Your task to perform on an android device: Open the stopwatch Image 0: 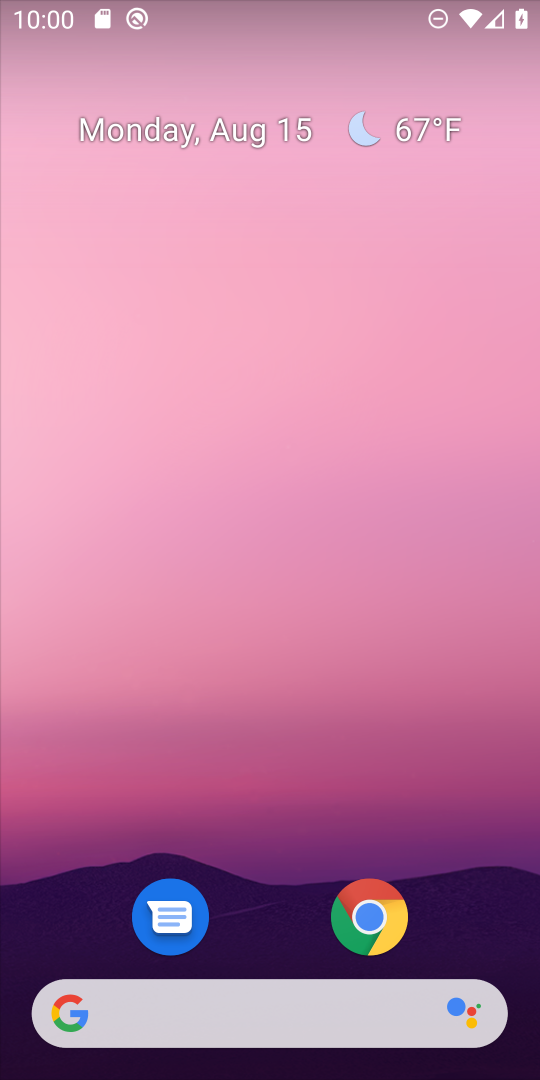
Step 0: press home button
Your task to perform on an android device: Open the stopwatch Image 1: 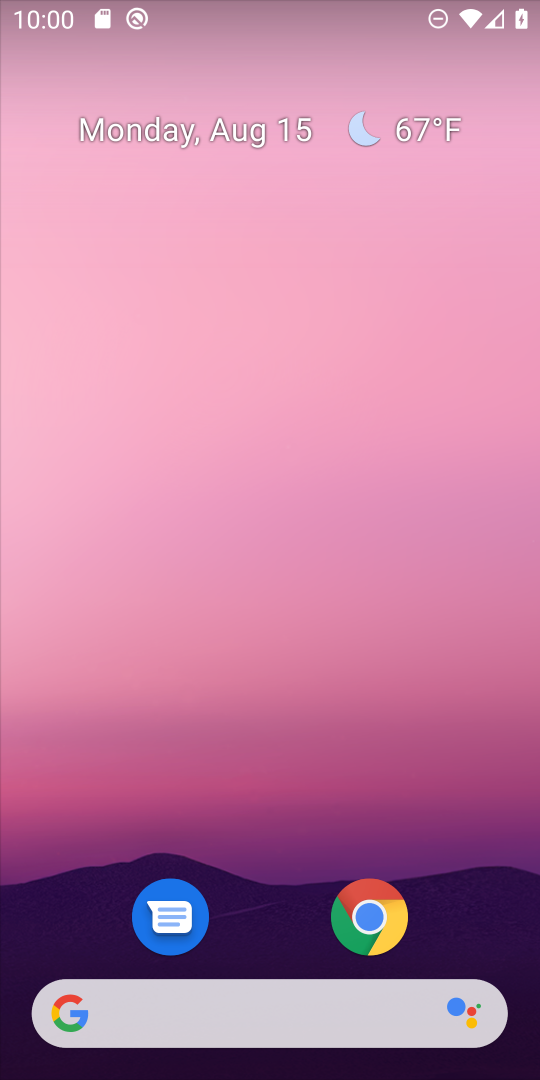
Step 1: drag from (278, 894) to (416, 12)
Your task to perform on an android device: Open the stopwatch Image 2: 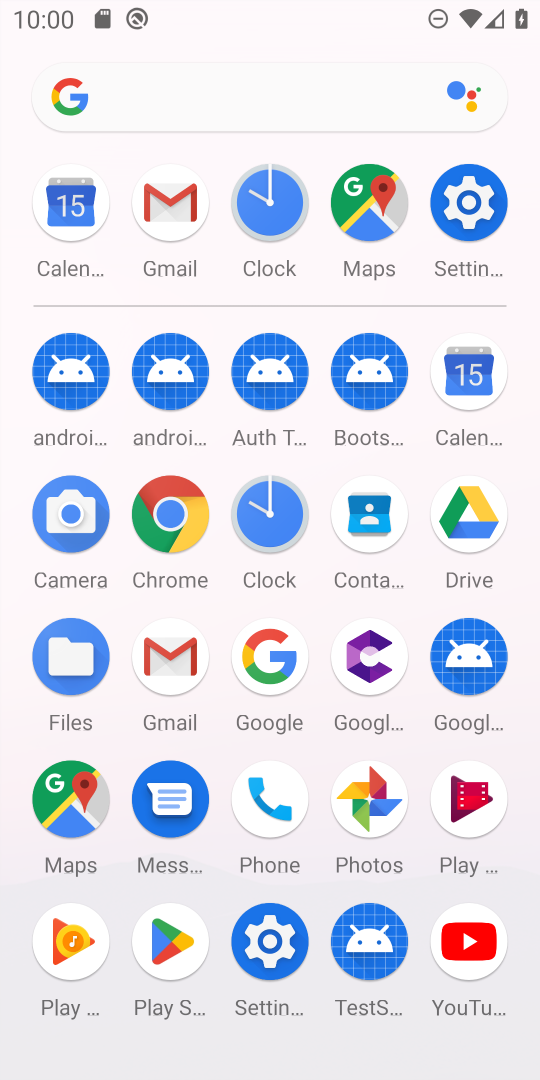
Step 2: click (462, 199)
Your task to perform on an android device: Open the stopwatch Image 3: 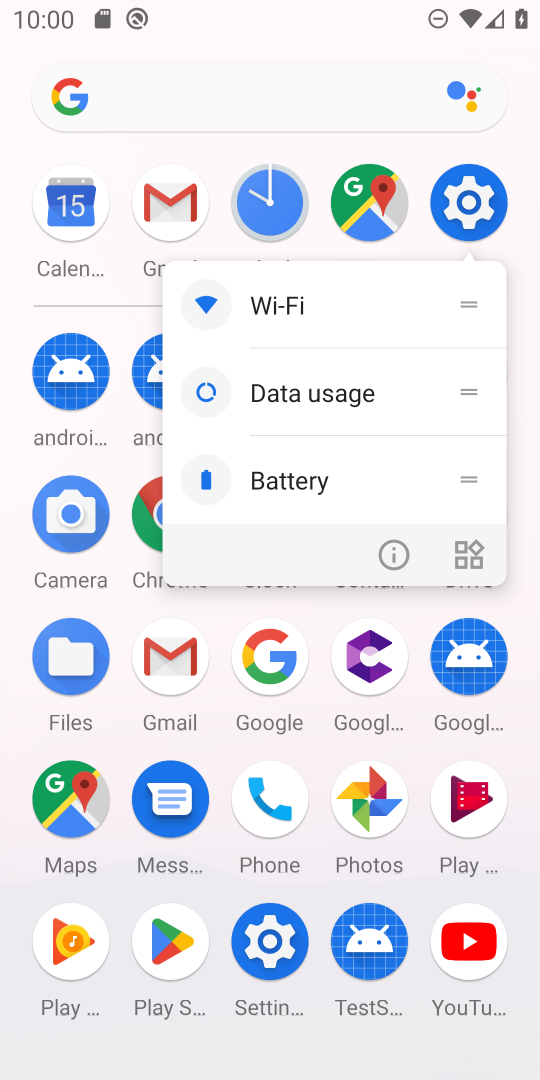
Step 3: click (462, 197)
Your task to perform on an android device: Open the stopwatch Image 4: 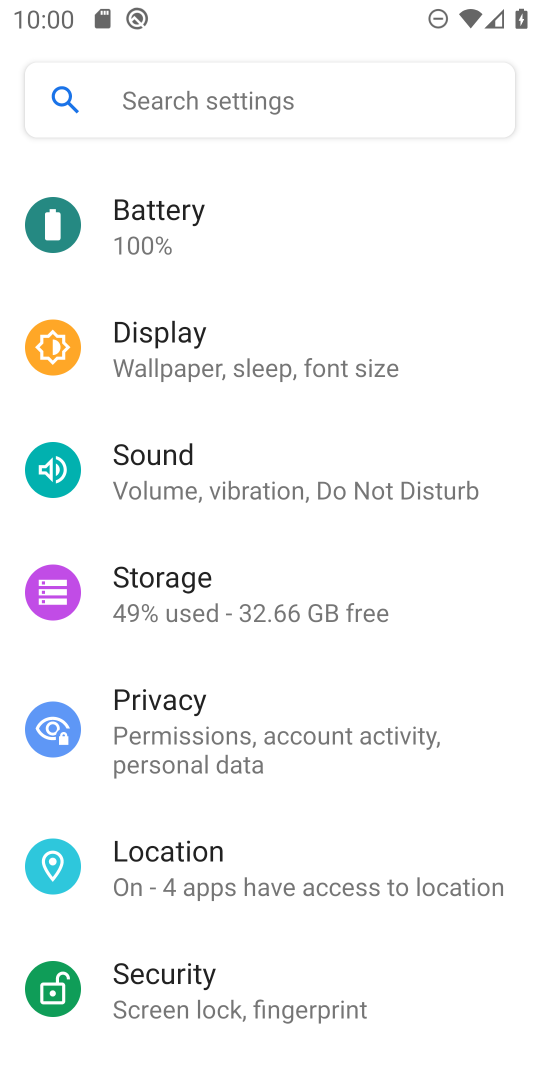
Step 4: drag from (343, 323) to (331, 904)
Your task to perform on an android device: Open the stopwatch Image 5: 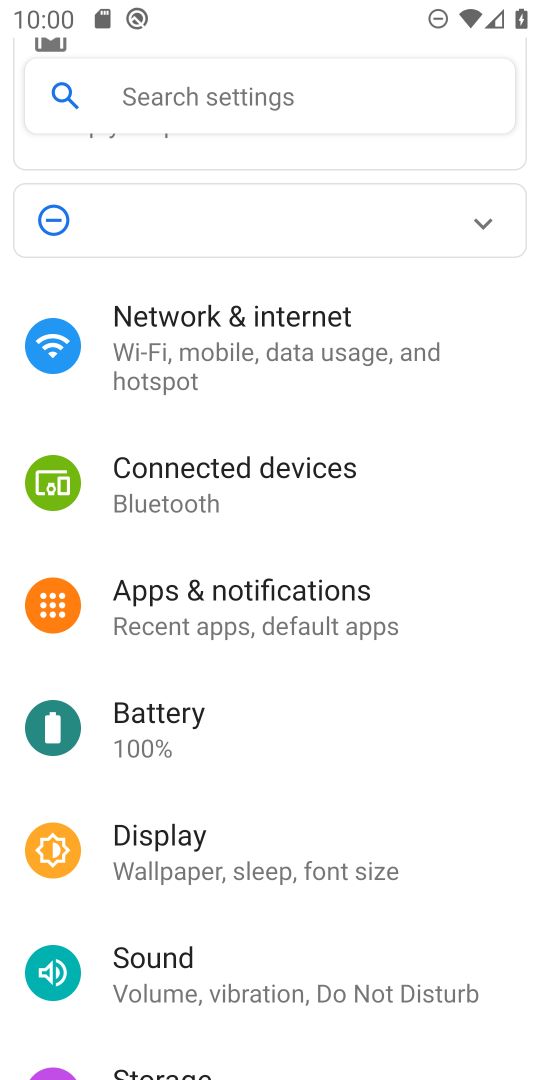
Step 5: press home button
Your task to perform on an android device: Open the stopwatch Image 6: 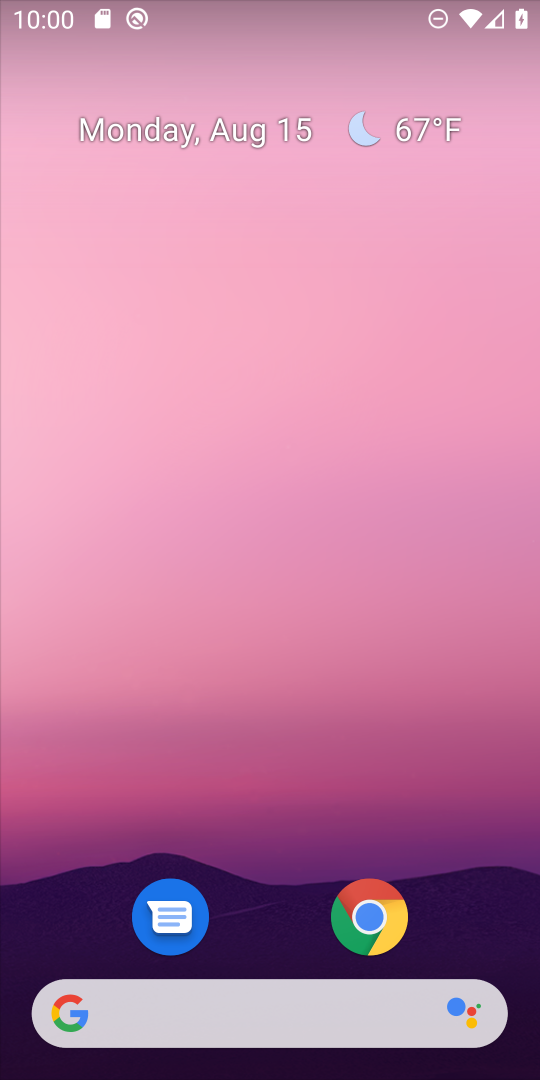
Step 6: drag from (277, 923) to (294, 4)
Your task to perform on an android device: Open the stopwatch Image 7: 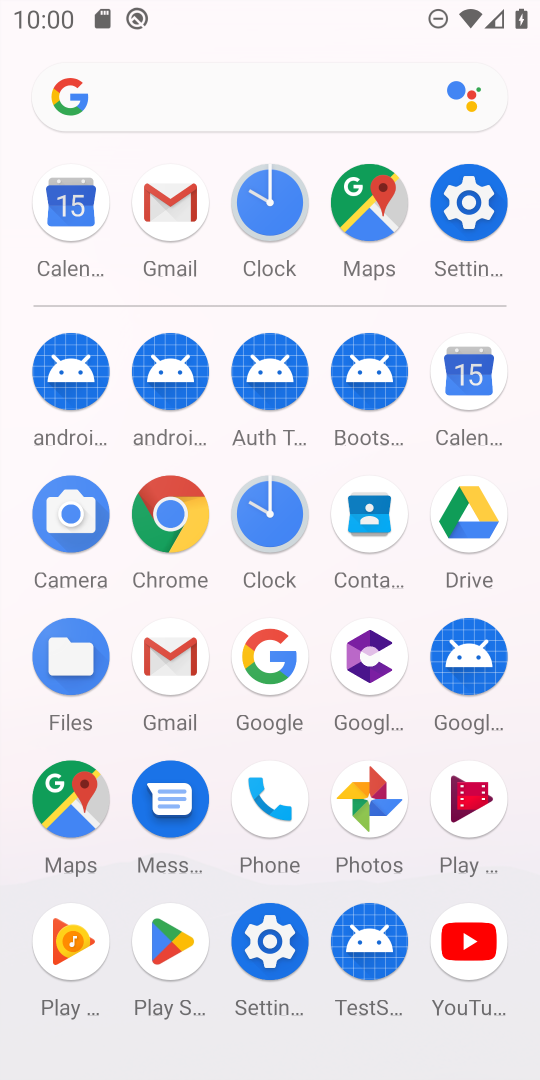
Step 7: click (265, 195)
Your task to perform on an android device: Open the stopwatch Image 8: 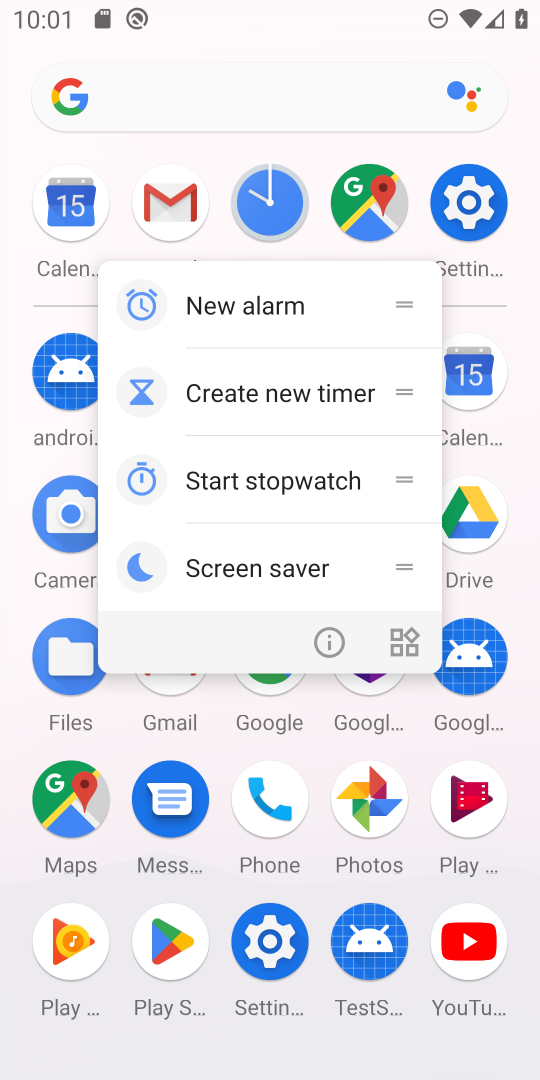
Step 8: click (267, 197)
Your task to perform on an android device: Open the stopwatch Image 9: 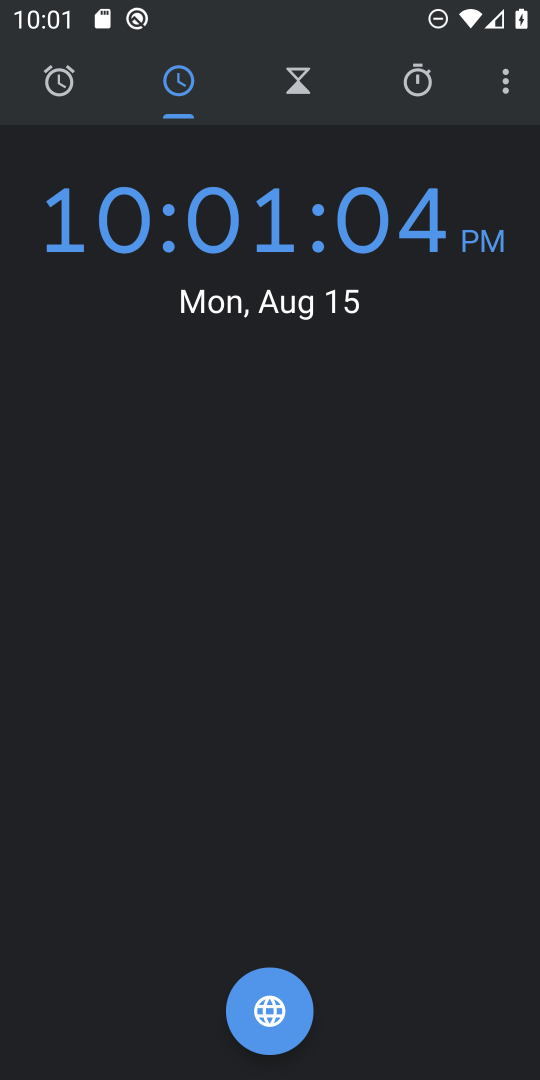
Step 9: click (418, 88)
Your task to perform on an android device: Open the stopwatch Image 10: 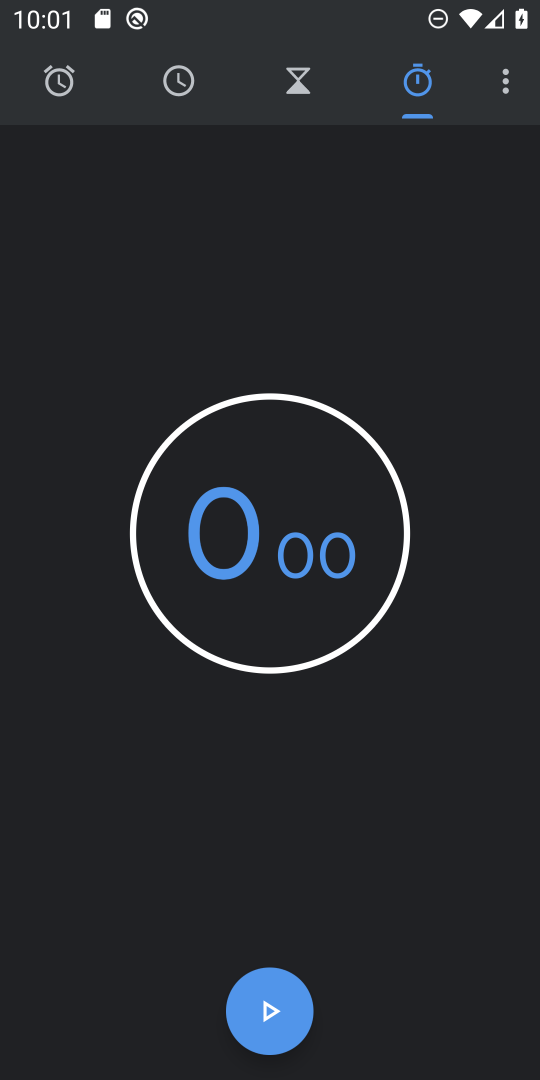
Step 10: task complete